Your task to perform on an android device: delete location history Image 0: 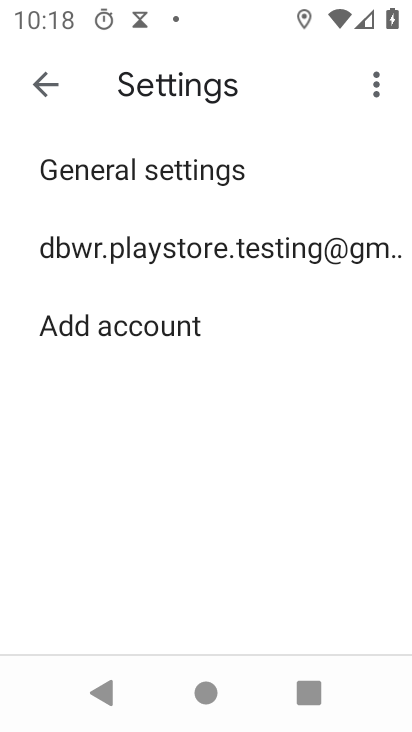
Step 0: press home button
Your task to perform on an android device: delete location history Image 1: 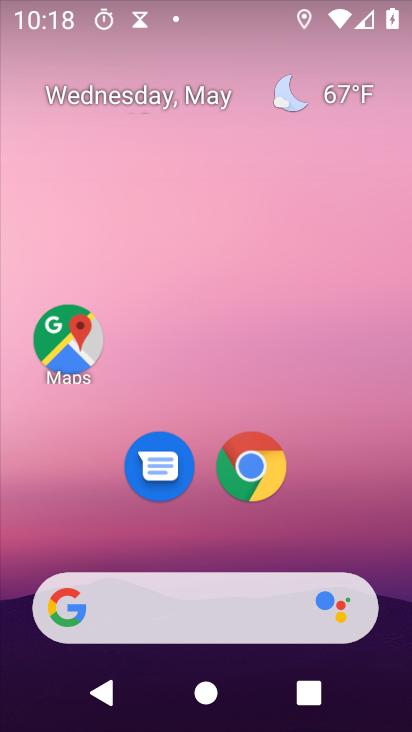
Step 1: drag from (227, 530) to (255, 119)
Your task to perform on an android device: delete location history Image 2: 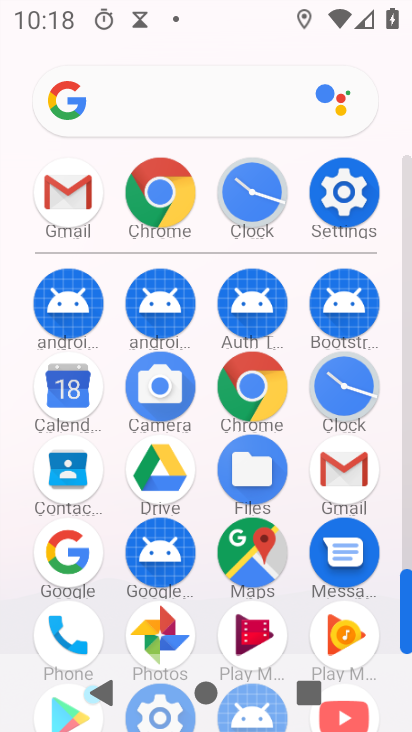
Step 2: click (341, 198)
Your task to perform on an android device: delete location history Image 3: 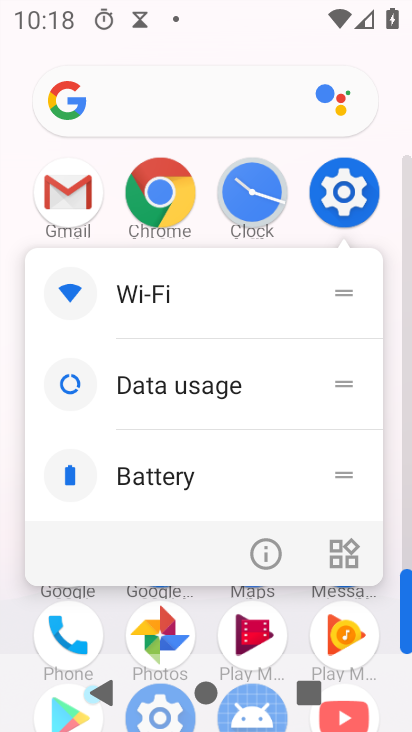
Step 3: click (149, 147)
Your task to perform on an android device: delete location history Image 4: 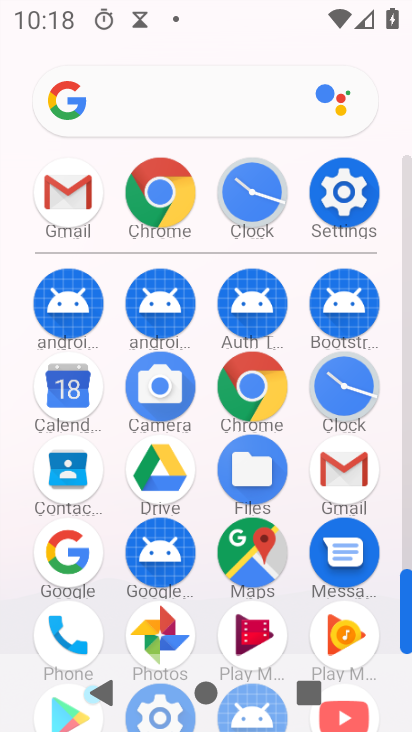
Step 4: click (341, 192)
Your task to perform on an android device: delete location history Image 5: 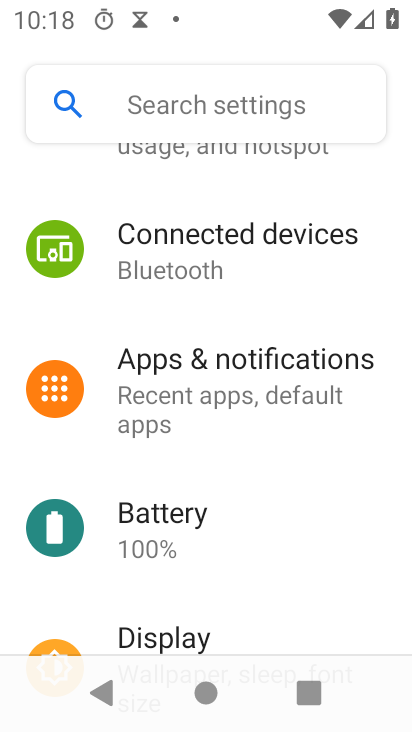
Step 5: drag from (189, 438) to (175, 120)
Your task to perform on an android device: delete location history Image 6: 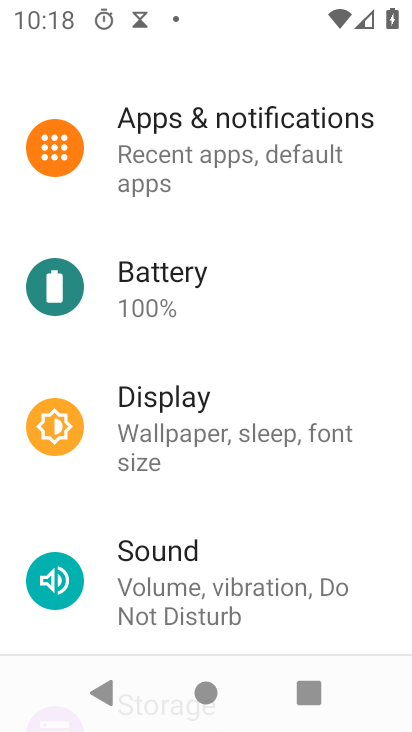
Step 6: drag from (196, 512) to (113, 91)
Your task to perform on an android device: delete location history Image 7: 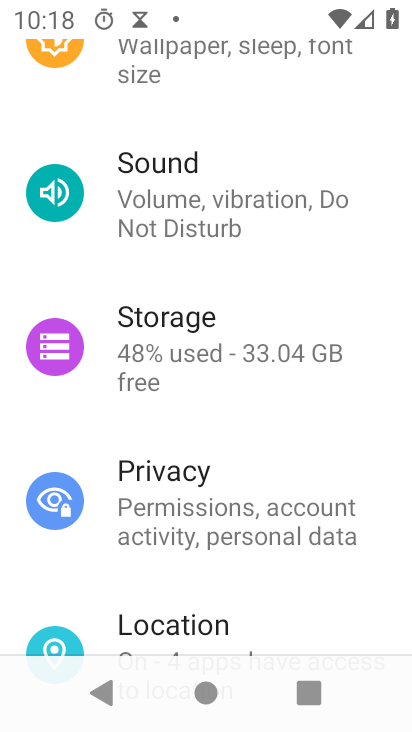
Step 7: click (186, 636)
Your task to perform on an android device: delete location history Image 8: 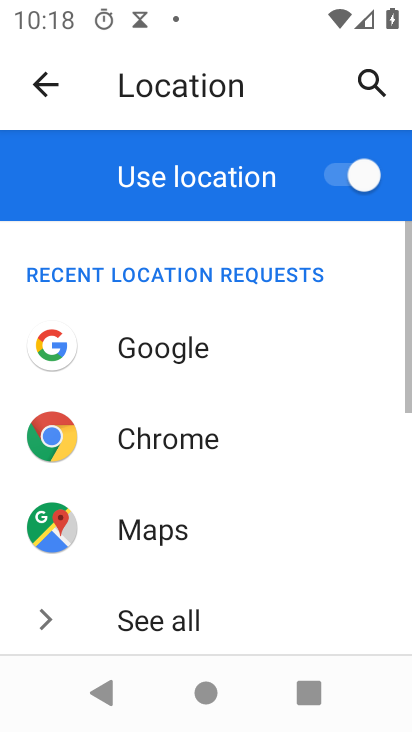
Step 8: drag from (187, 623) to (186, 547)
Your task to perform on an android device: delete location history Image 9: 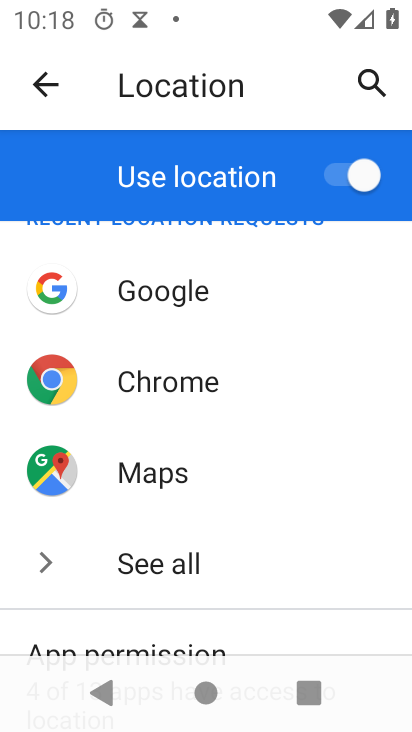
Step 9: drag from (125, 591) to (141, 244)
Your task to perform on an android device: delete location history Image 10: 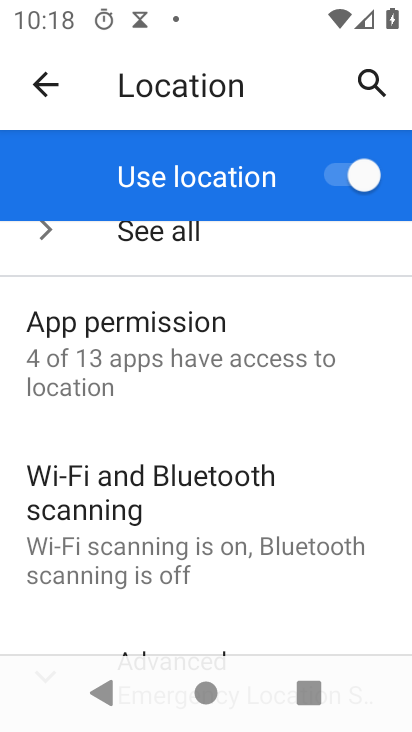
Step 10: drag from (147, 610) to (152, 289)
Your task to perform on an android device: delete location history Image 11: 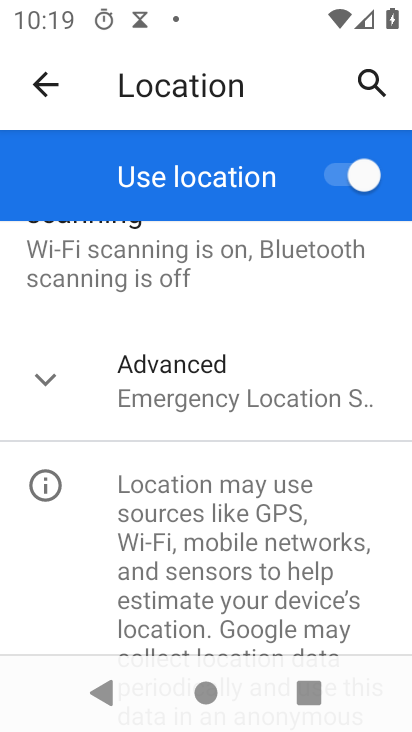
Step 11: click (161, 409)
Your task to perform on an android device: delete location history Image 12: 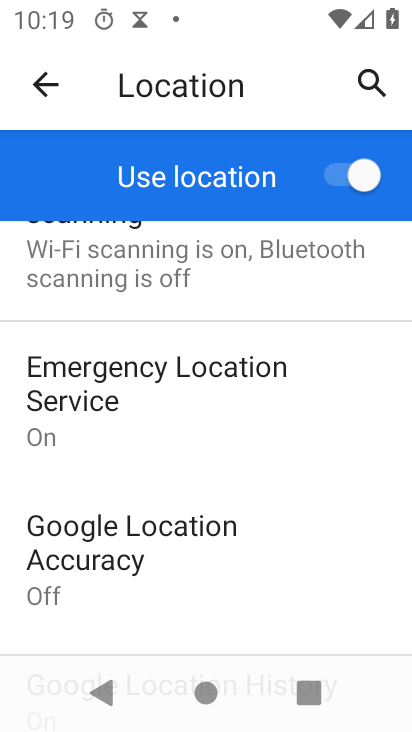
Step 12: drag from (158, 590) to (148, 439)
Your task to perform on an android device: delete location history Image 13: 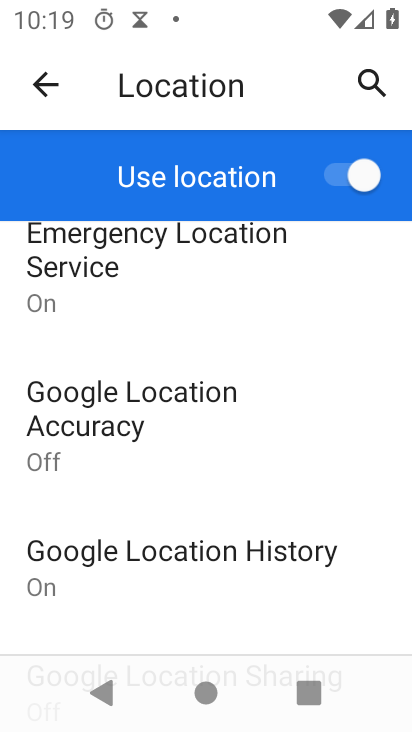
Step 13: click (172, 576)
Your task to perform on an android device: delete location history Image 14: 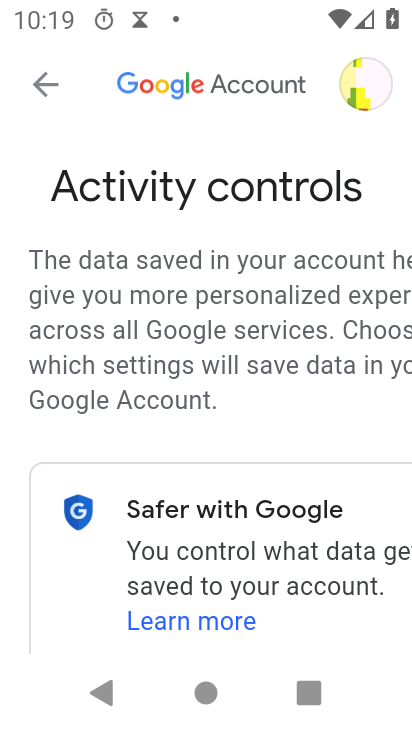
Step 14: drag from (191, 600) to (184, 248)
Your task to perform on an android device: delete location history Image 15: 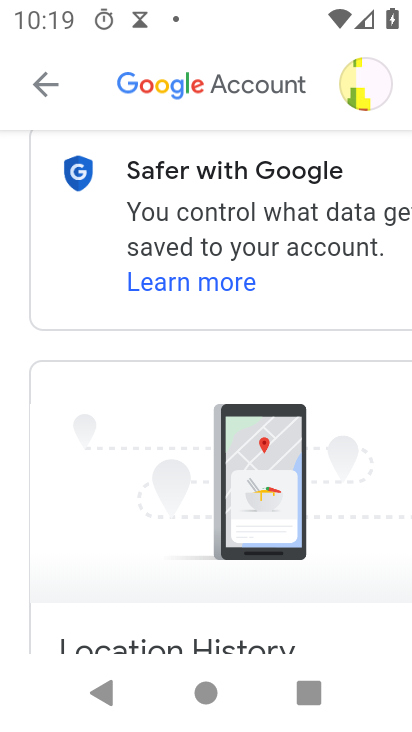
Step 15: drag from (236, 592) to (171, 169)
Your task to perform on an android device: delete location history Image 16: 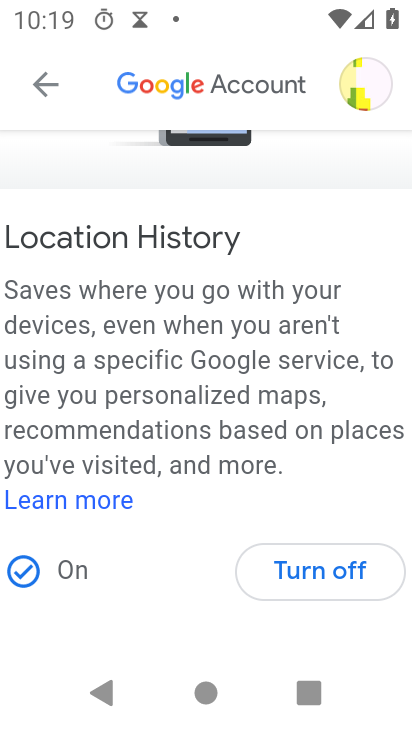
Step 16: drag from (101, 610) to (95, 218)
Your task to perform on an android device: delete location history Image 17: 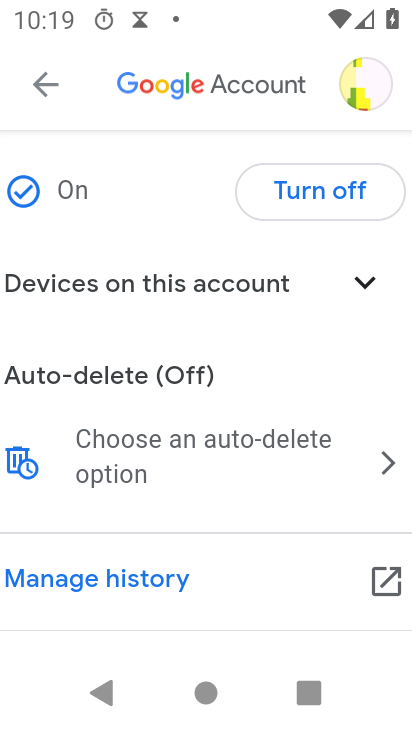
Step 17: click (104, 579)
Your task to perform on an android device: delete location history Image 18: 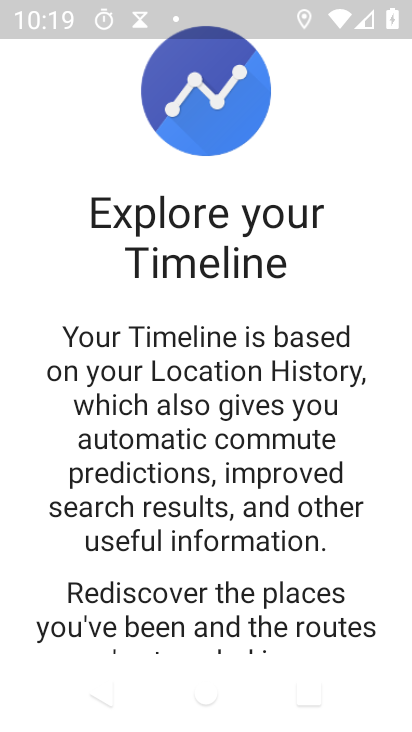
Step 18: drag from (204, 609) to (208, 322)
Your task to perform on an android device: delete location history Image 19: 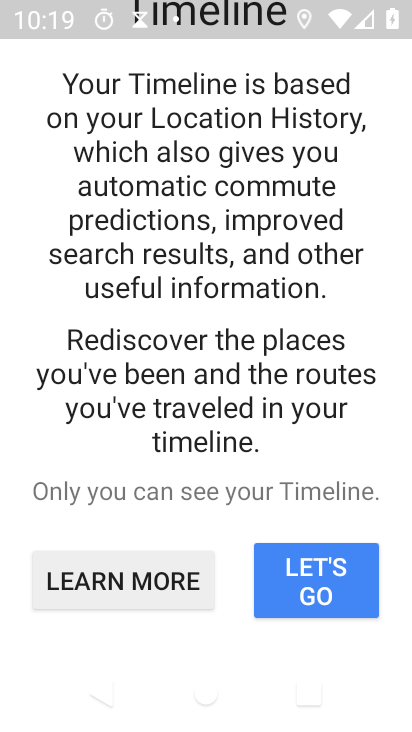
Step 19: click (273, 589)
Your task to perform on an android device: delete location history Image 20: 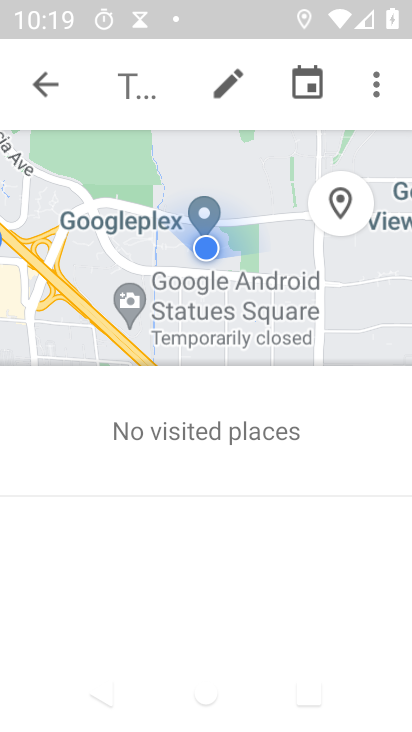
Step 20: click (371, 96)
Your task to perform on an android device: delete location history Image 21: 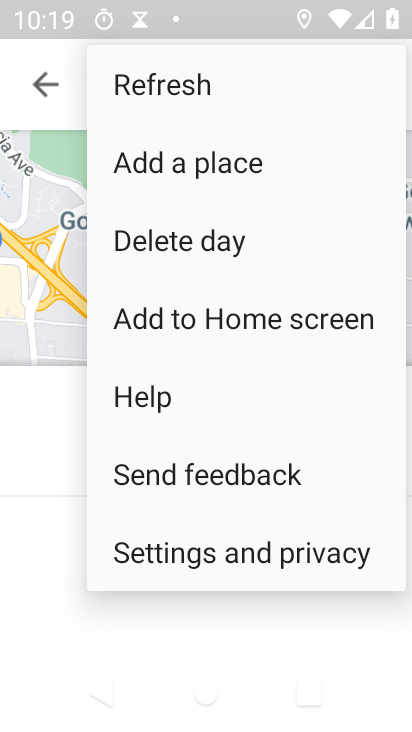
Step 21: click (232, 551)
Your task to perform on an android device: delete location history Image 22: 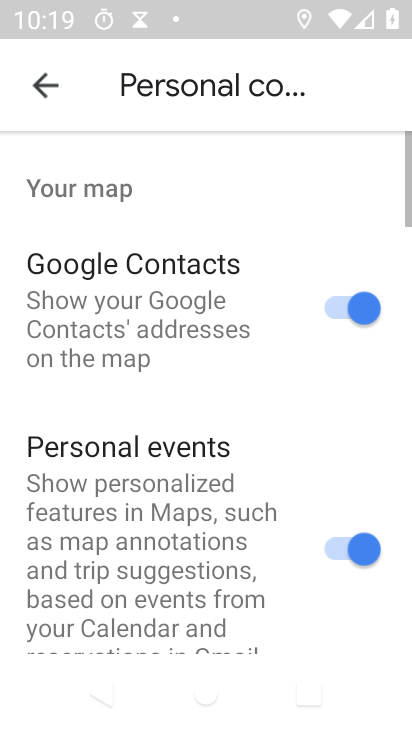
Step 22: drag from (229, 576) to (196, 116)
Your task to perform on an android device: delete location history Image 23: 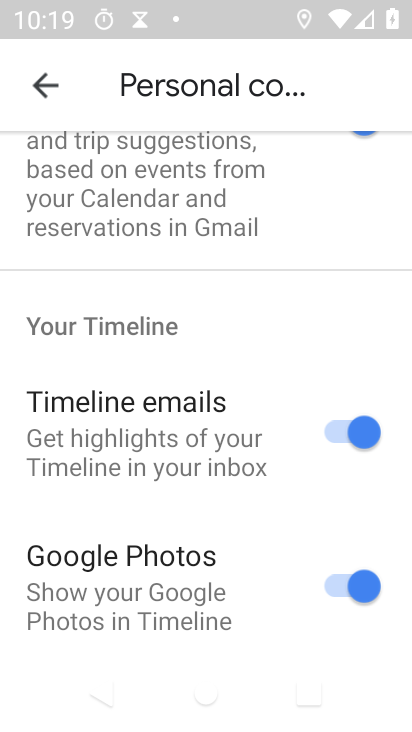
Step 23: drag from (160, 579) to (138, 257)
Your task to perform on an android device: delete location history Image 24: 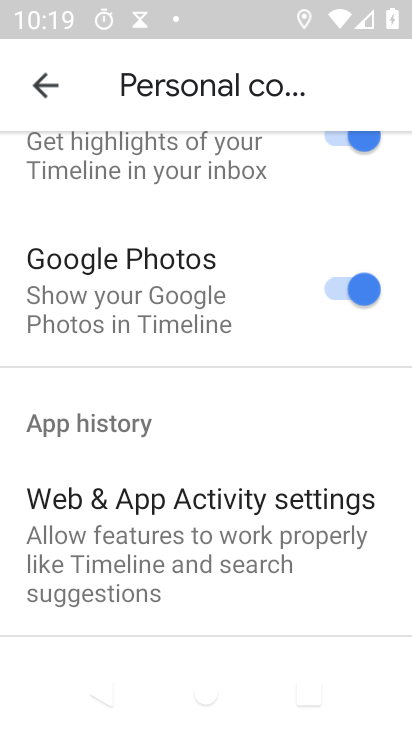
Step 24: drag from (168, 560) to (177, 241)
Your task to perform on an android device: delete location history Image 25: 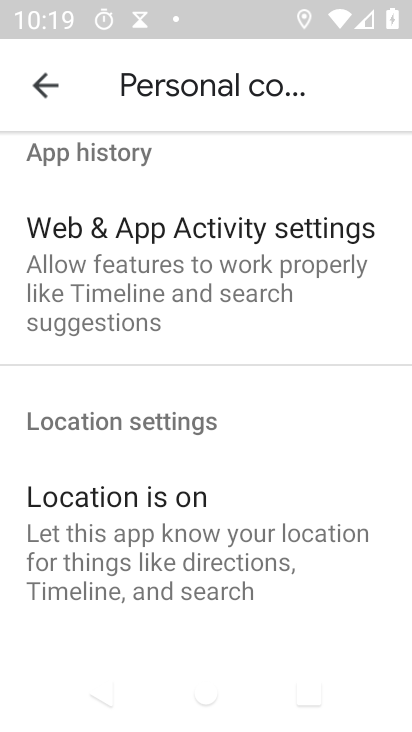
Step 25: drag from (174, 553) to (148, 332)
Your task to perform on an android device: delete location history Image 26: 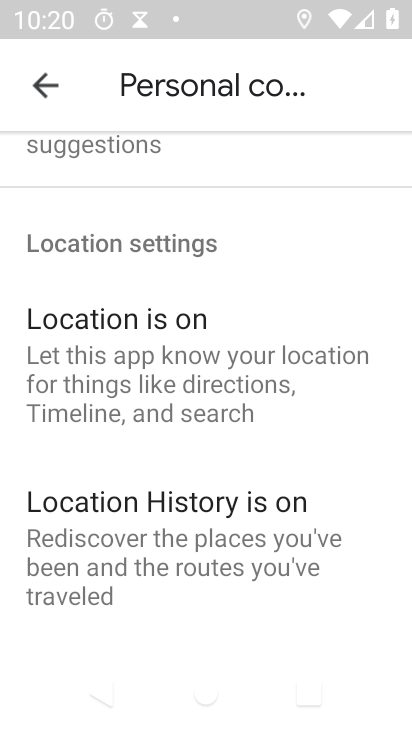
Step 26: drag from (186, 613) to (164, 364)
Your task to perform on an android device: delete location history Image 27: 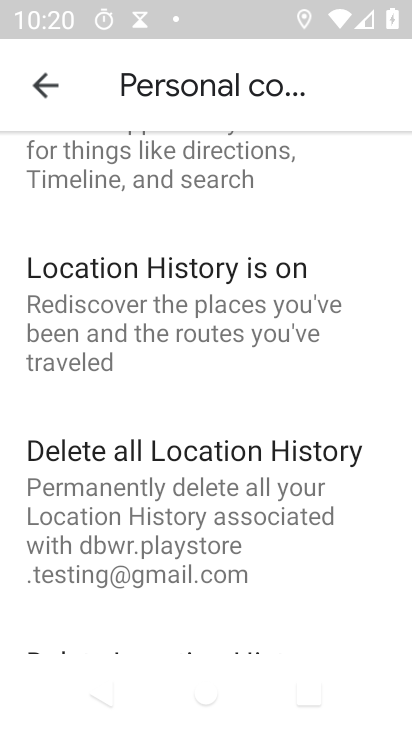
Step 27: click (136, 546)
Your task to perform on an android device: delete location history Image 28: 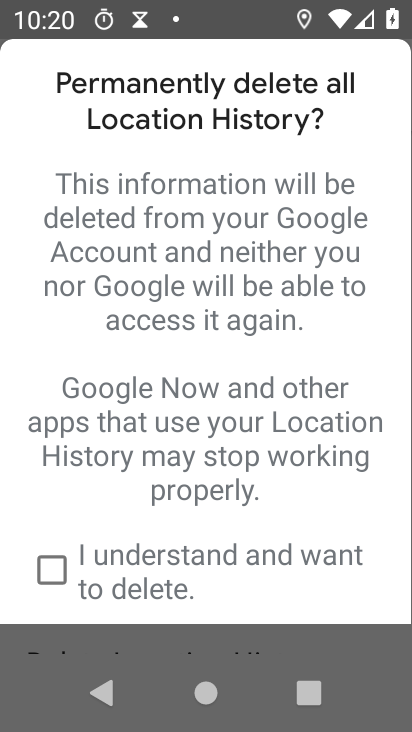
Step 28: drag from (137, 480) to (137, 213)
Your task to perform on an android device: delete location history Image 29: 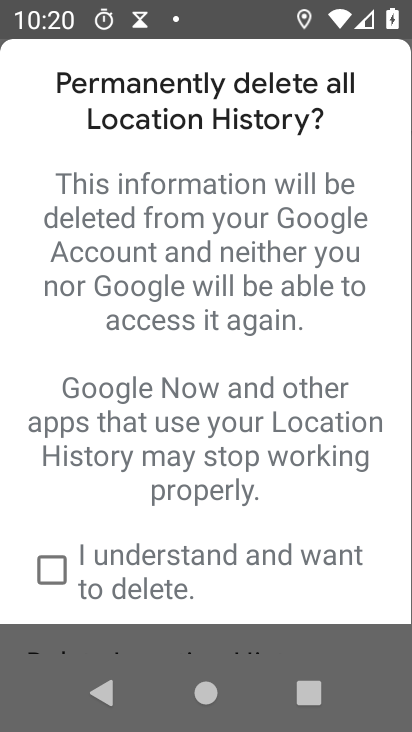
Step 29: click (44, 585)
Your task to perform on an android device: delete location history Image 30: 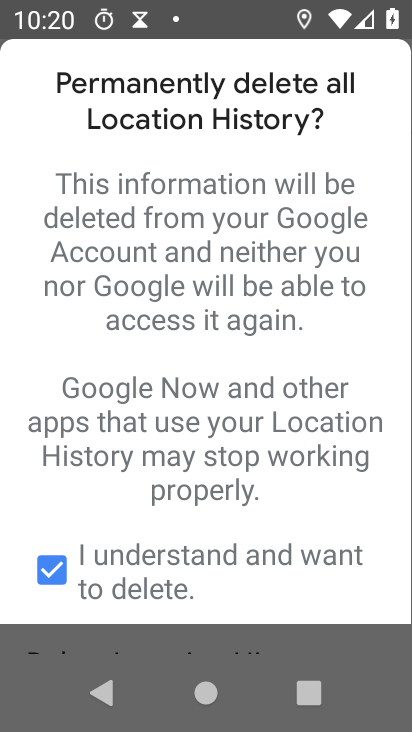
Step 30: task complete